Your task to perform on an android device: Open Google Chrome Image 0: 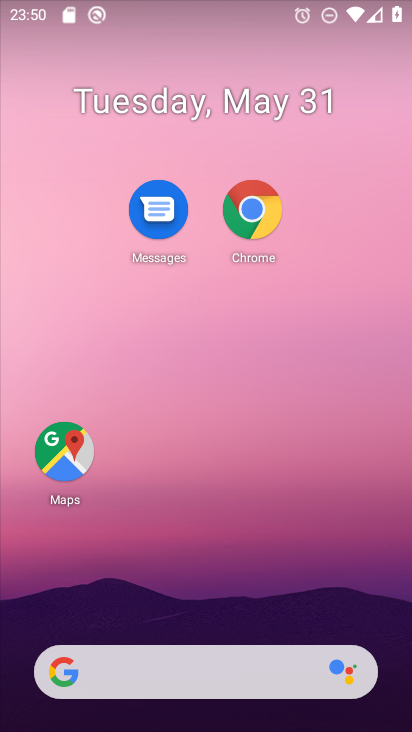
Step 0: click (251, 205)
Your task to perform on an android device: Open Google Chrome Image 1: 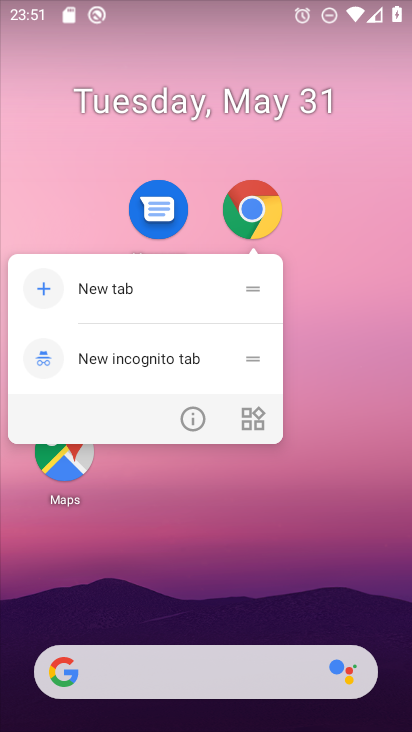
Step 1: click (246, 202)
Your task to perform on an android device: Open Google Chrome Image 2: 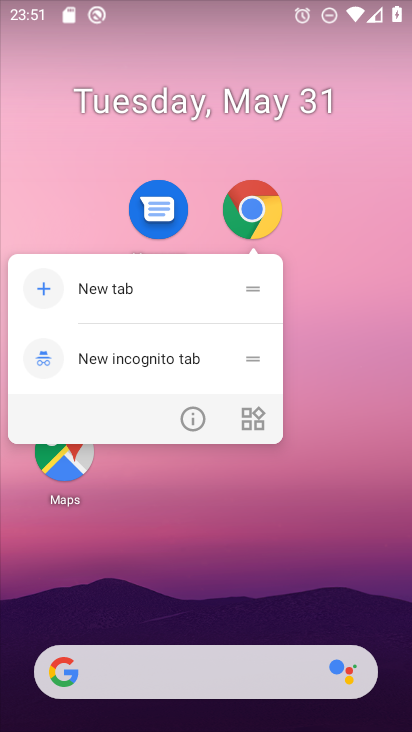
Step 2: click (250, 200)
Your task to perform on an android device: Open Google Chrome Image 3: 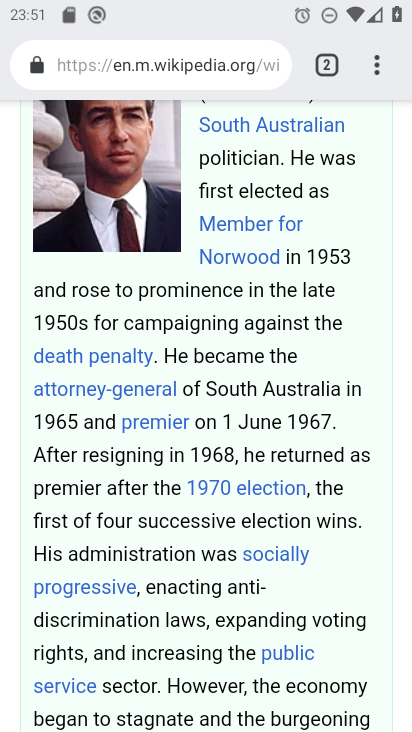
Step 3: click (328, 57)
Your task to perform on an android device: Open Google Chrome Image 4: 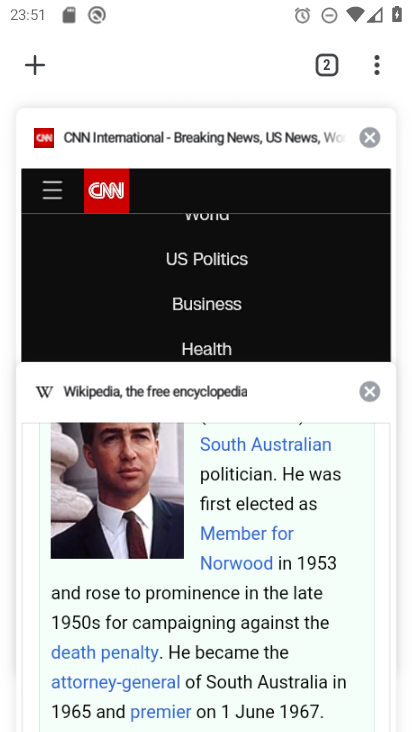
Step 4: click (368, 125)
Your task to perform on an android device: Open Google Chrome Image 5: 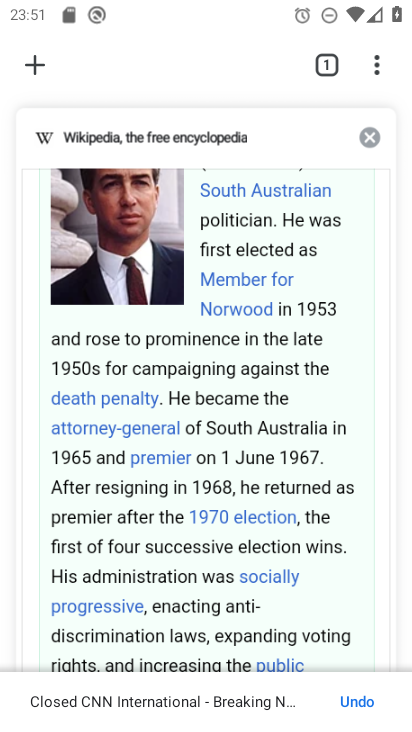
Step 5: click (367, 130)
Your task to perform on an android device: Open Google Chrome Image 6: 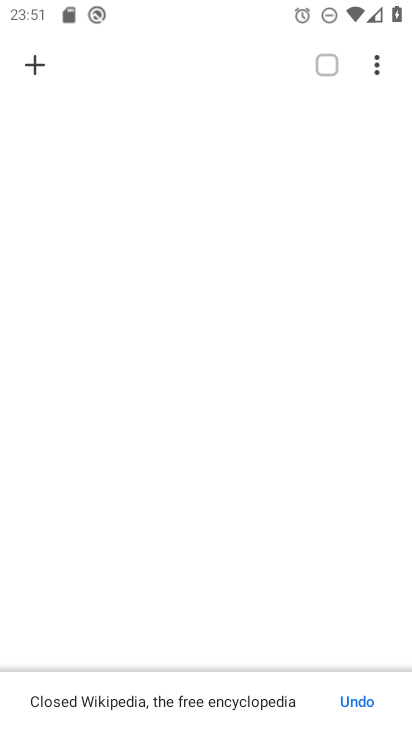
Step 6: click (41, 69)
Your task to perform on an android device: Open Google Chrome Image 7: 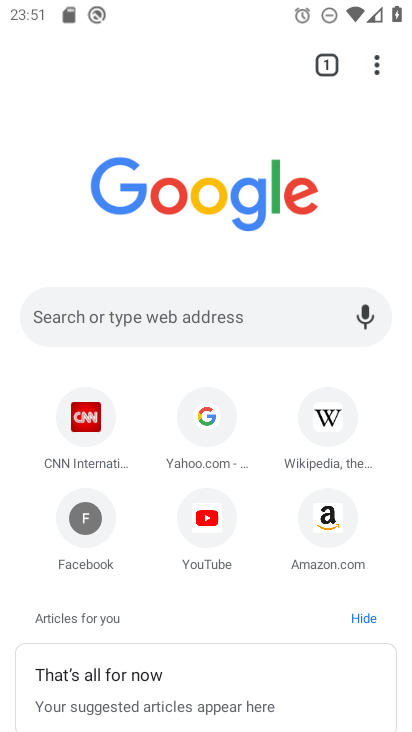
Step 7: task complete